Your task to perform on an android device: open a new tab in the chrome app Image 0: 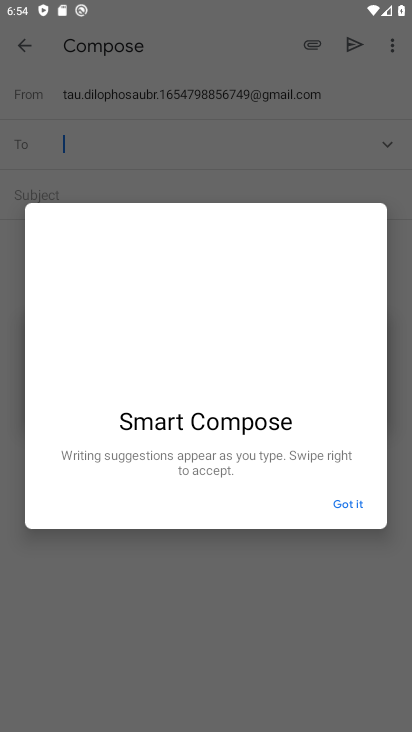
Step 0: press home button
Your task to perform on an android device: open a new tab in the chrome app Image 1: 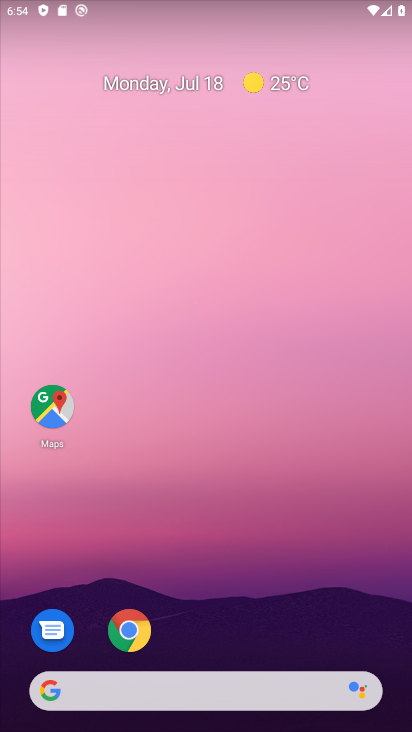
Step 1: drag from (205, 716) to (209, 149)
Your task to perform on an android device: open a new tab in the chrome app Image 2: 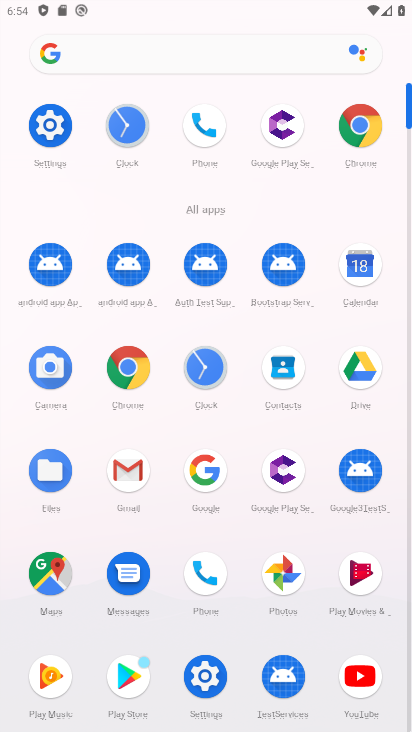
Step 2: click (127, 362)
Your task to perform on an android device: open a new tab in the chrome app Image 3: 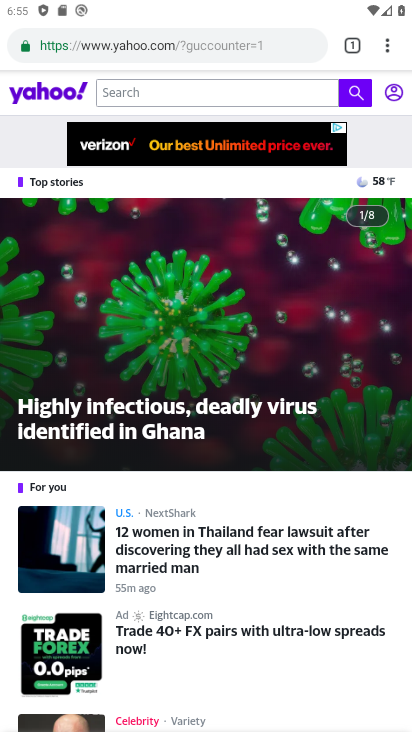
Step 3: click (391, 50)
Your task to perform on an android device: open a new tab in the chrome app Image 4: 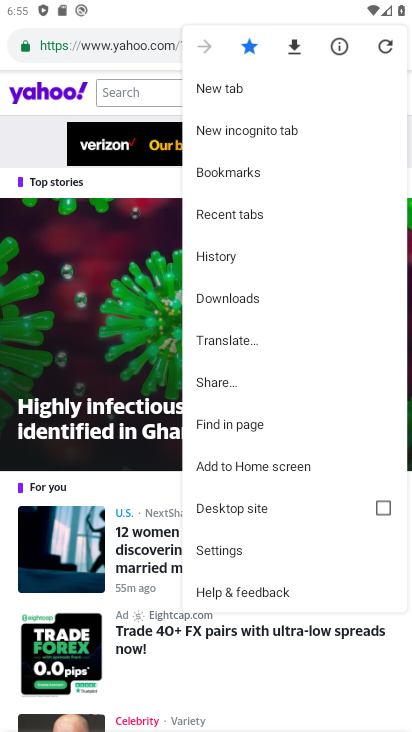
Step 4: click (225, 88)
Your task to perform on an android device: open a new tab in the chrome app Image 5: 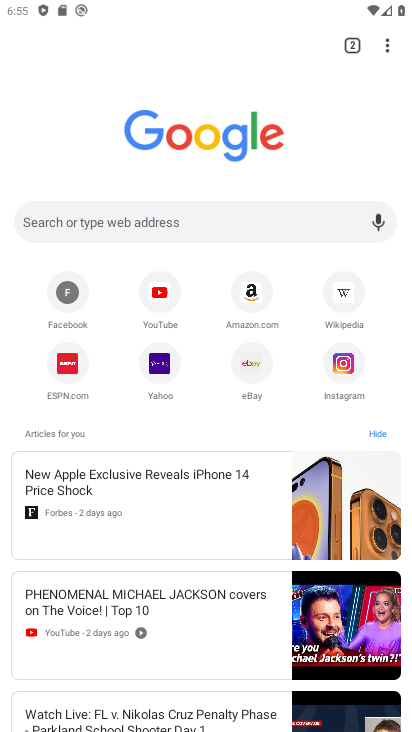
Step 5: task complete